Your task to perform on an android device: choose inbox layout in the gmail app Image 0: 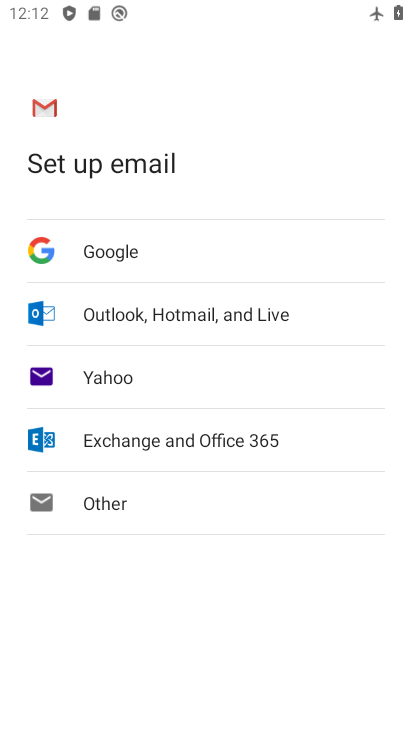
Step 0: press home button
Your task to perform on an android device: choose inbox layout in the gmail app Image 1: 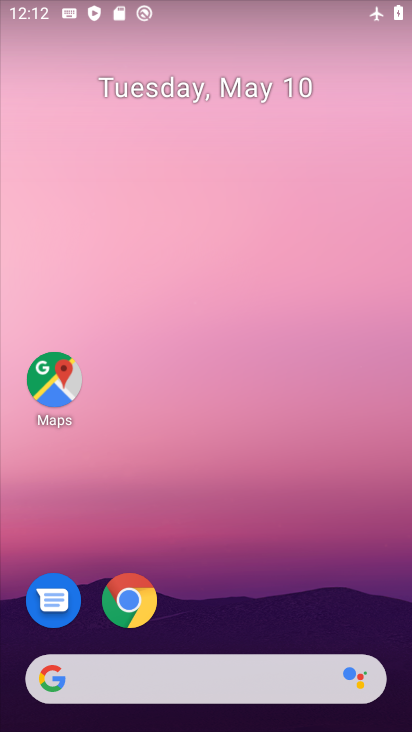
Step 1: drag from (132, 679) to (216, 246)
Your task to perform on an android device: choose inbox layout in the gmail app Image 2: 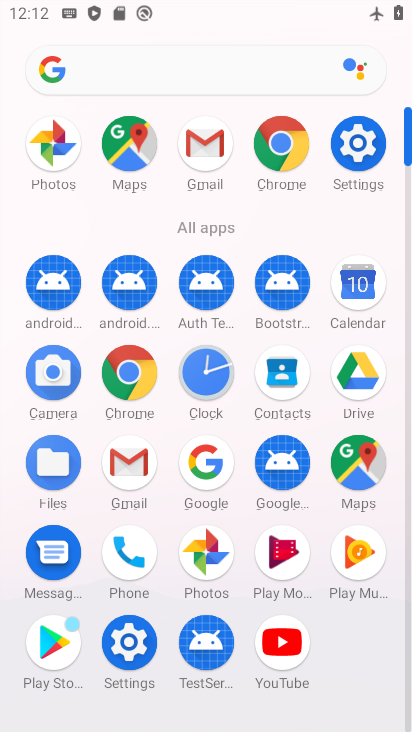
Step 2: click (136, 450)
Your task to perform on an android device: choose inbox layout in the gmail app Image 3: 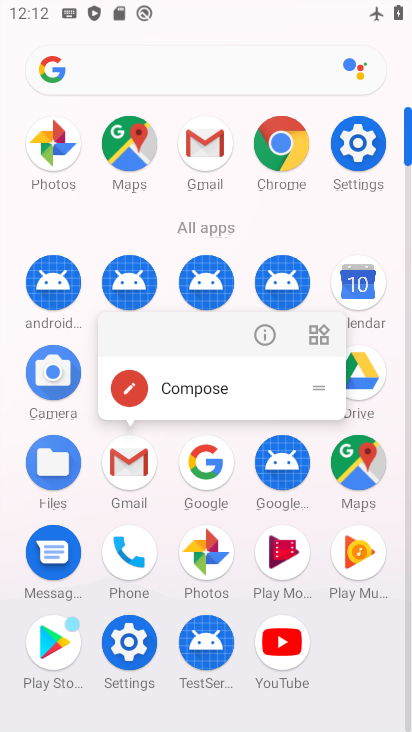
Step 3: click (118, 462)
Your task to perform on an android device: choose inbox layout in the gmail app Image 4: 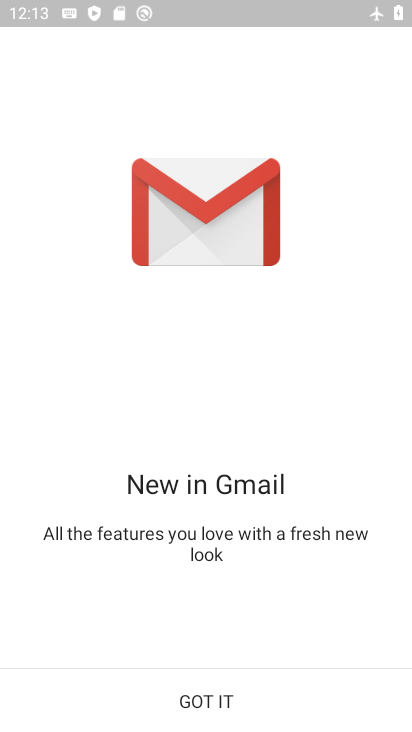
Step 4: click (184, 692)
Your task to perform on an android device: choose inbox layout in the gmail app Image 5: 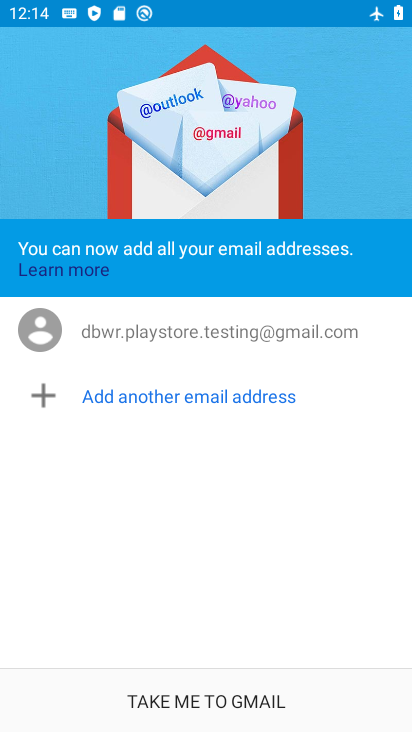
Step 5: click (184, 692)
Your task to perform on an android device: choose inbox layout in the gmail app Image 6: 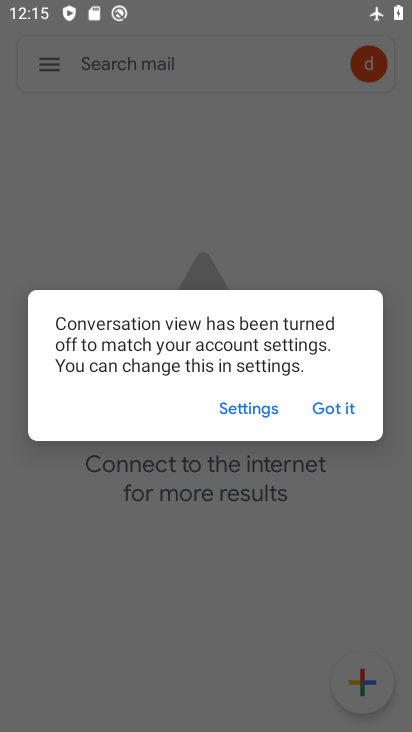
Step 6: click (346, 407)
Your task to perform on an android device: choose inbox layout in the gmail app Image 7: 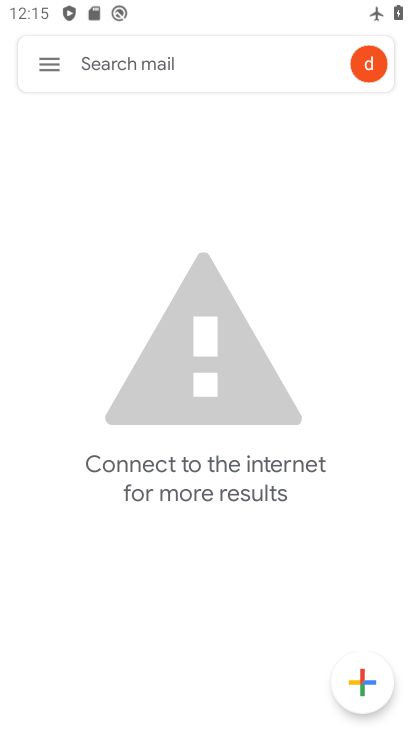
Step 7: click (68, 63)
Your task to perform on an android device: choose inbox layout in the gmail app Image 8: 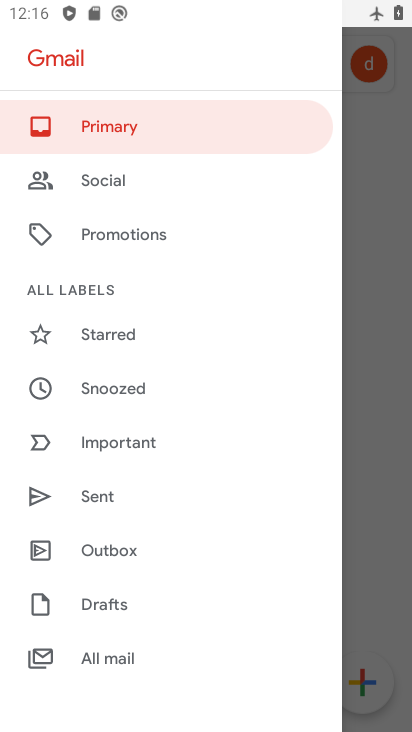
Step 8: task complete